Your task to perform on an android device: set an alarm Image 0: 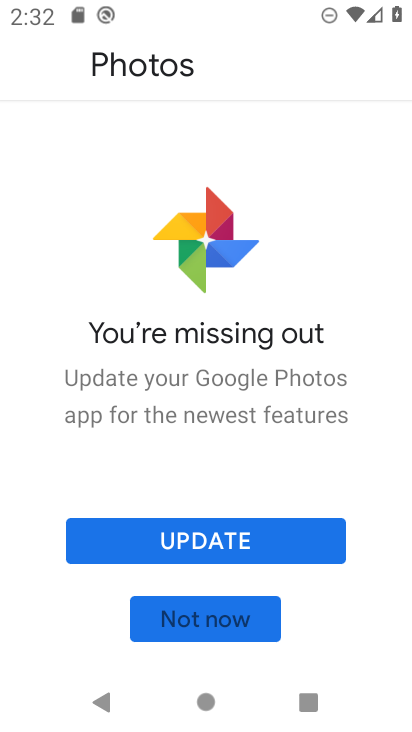
Step 0: press back button
Your task to perform on an android device: set an alarm Image 1: 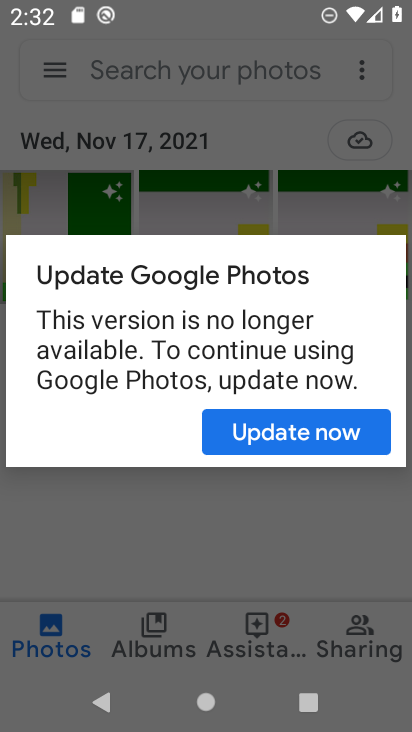
Step 1: press back button
Your task to perform on an android device: set an alarm Image 2: 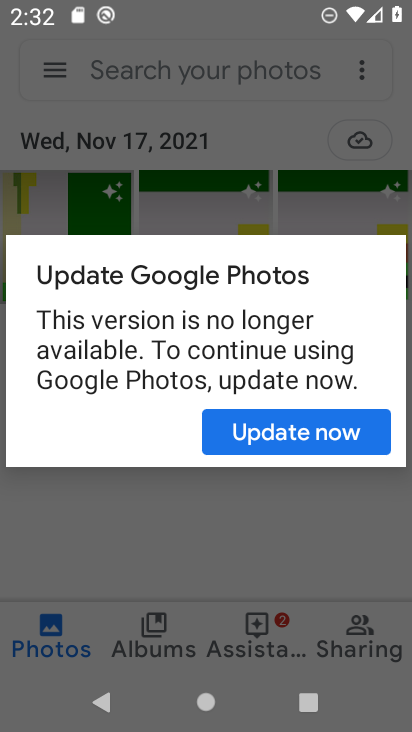
Step 2: press home button
Your task to perform on an android device: set an alarm Image 3: 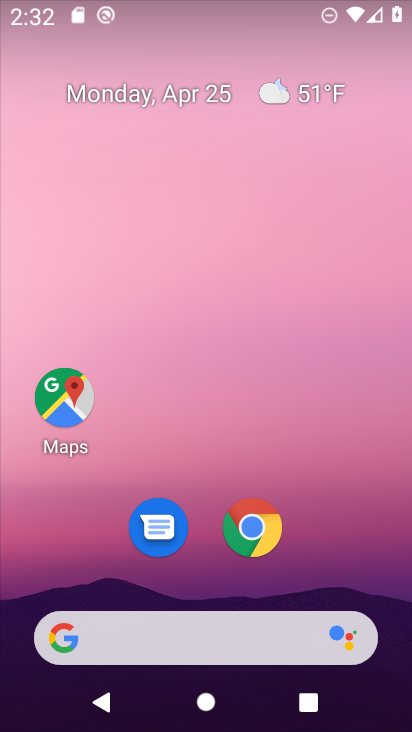
Step 3: drag from (353, 545) to (251, 6)
Your task to perform on an android device: set an alarm Image 4: 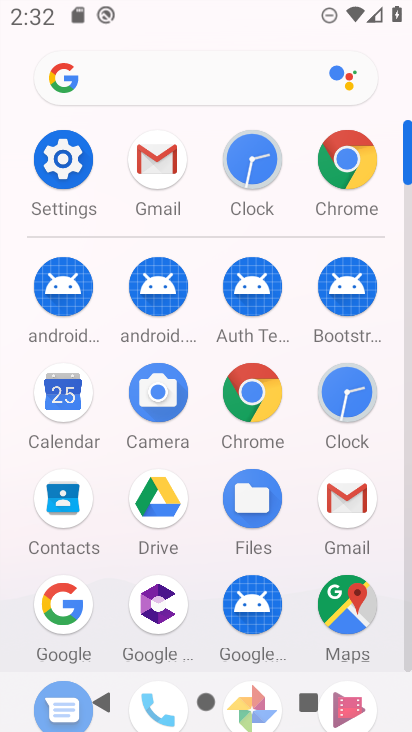
Step 4: click (348, 389)
Your task to perform on an android device: set an alarm Image 5: 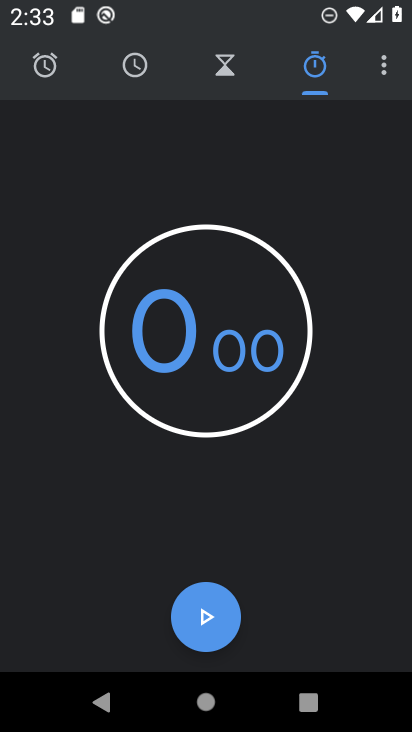
Step 5: click (59, 74)
Your task to perform on an android device: set an alarm Image 6: 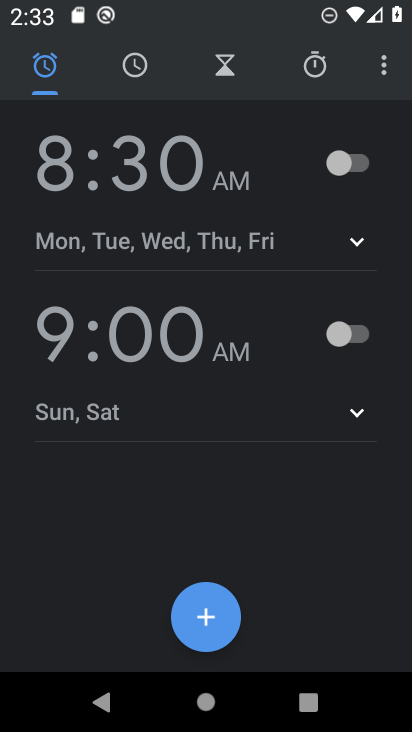
Step 6: click (217, 604)
Your task to perform on an android device: set an alarm Image 7: 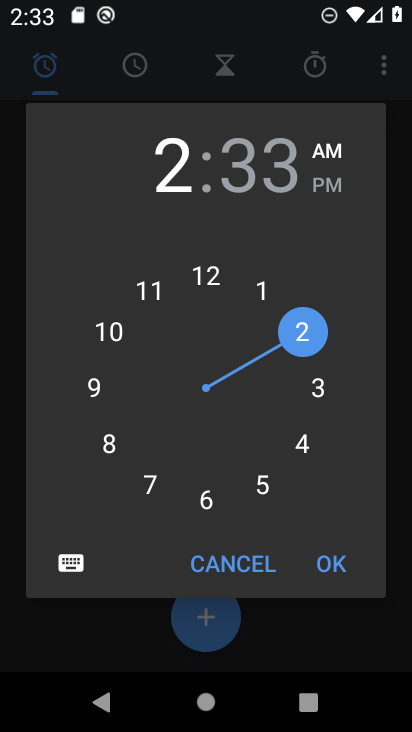
Step 7: click (253, 482)
Your task to perform on an android device: set an alarm Image 8: 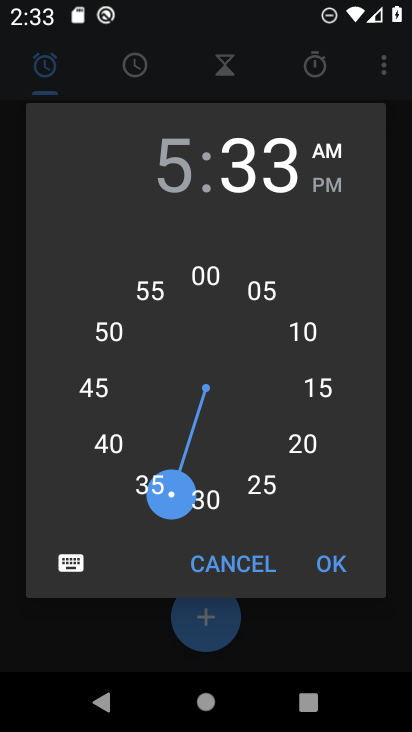
Step 8: click (328, 548)
Your task to perform on an android device: set an alarm Image 9: 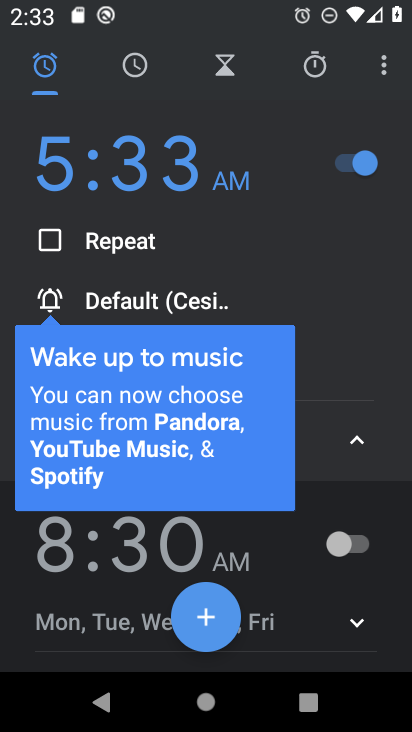
Step 9: task complete